Your task to perform on an android device: Play the last video I watched on Youtube Image 0: 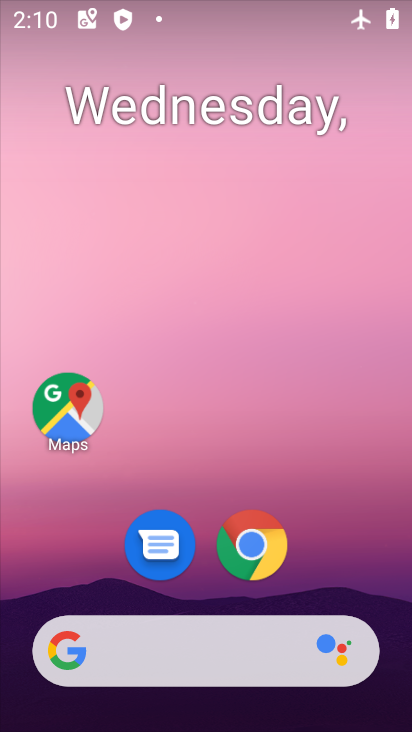
Step 0: drag from (337, 558) to (310, 155)
Your task to perform on an android device: Play the last video I watched on Youtube Image 1: 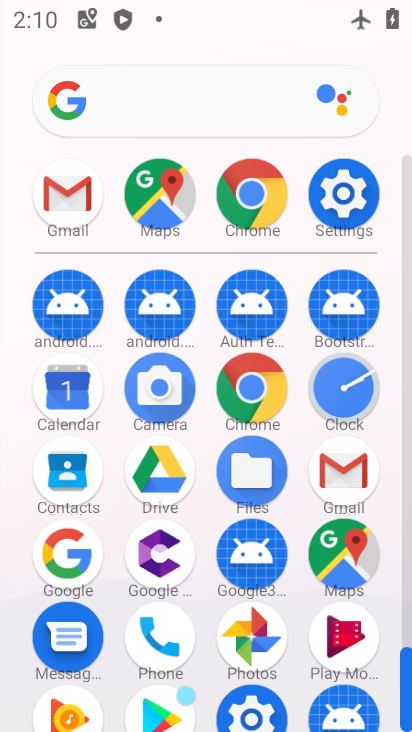
Step 1: drag from (294, 508) to (346, 99)
Your task to perform on an android device: Play the last video I watched on Youtube Image 2: 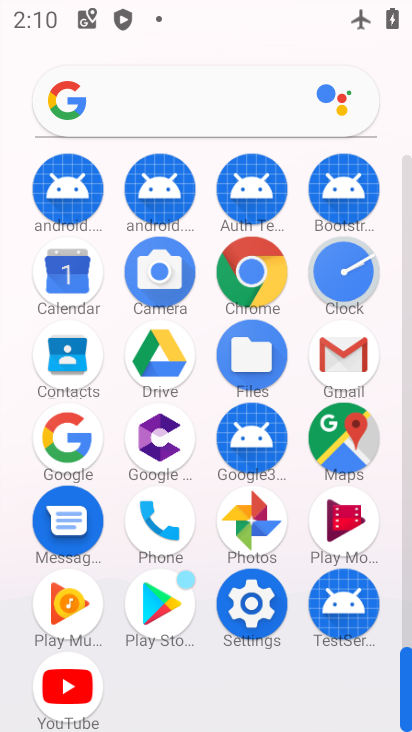
Step 2: click (66, 694)
Your task to perform on an android device: Play the last video I watched on Youtube Image 3: 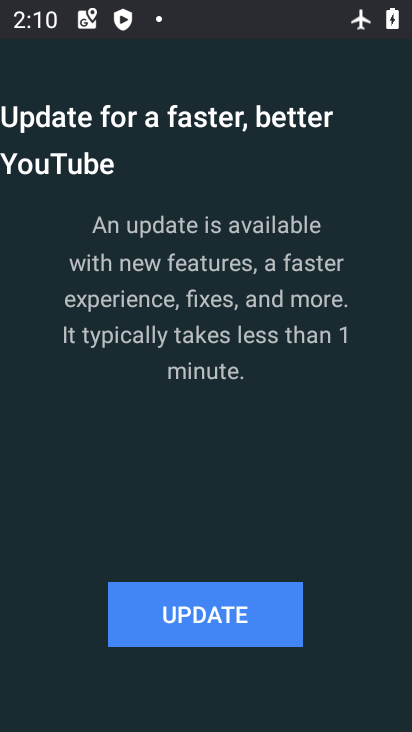
Step 3: click (261, 618)
Your task to perform on an android device: Play the last video I watched on Youtube Image 4: 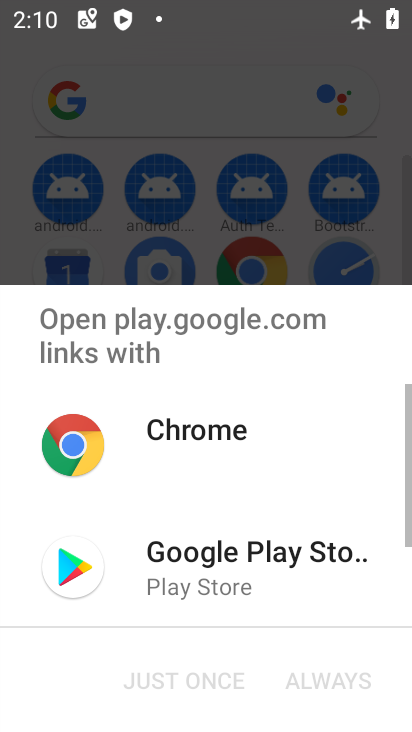
Step 4: click (153, 562)
Your task to perform on an android device: Play the last video I watched on Youtube Image 5: 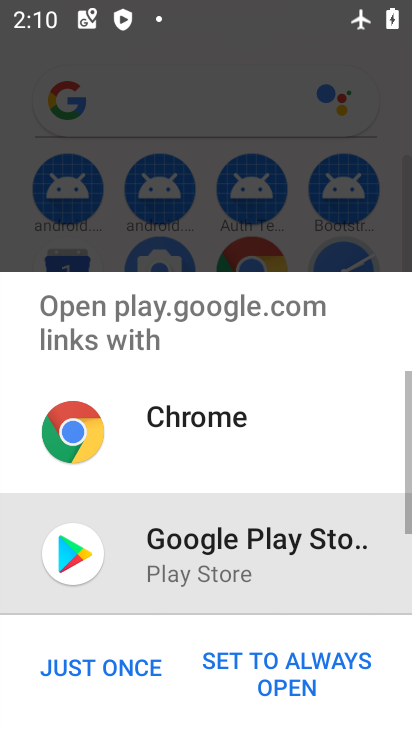
Step 5: click (125, 682)
Your task to perform on an android device: Play the last video I watched on Youtube Image 6: 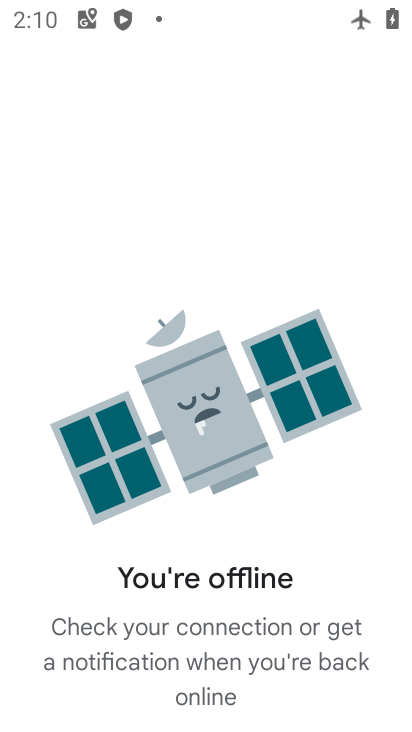
Step 6: task complete